Your task to perform on an android device: delete browsing data in the chrome app Image 0: 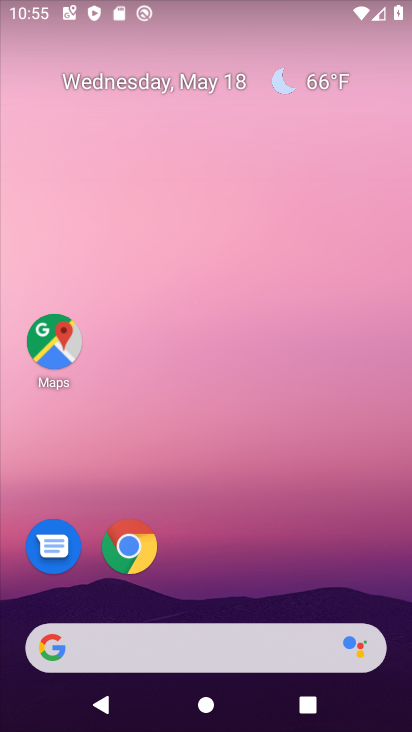
Step 0: click (133, 548)
Your task to perform on an android device: delete browsing data in the chrome app Image 1: 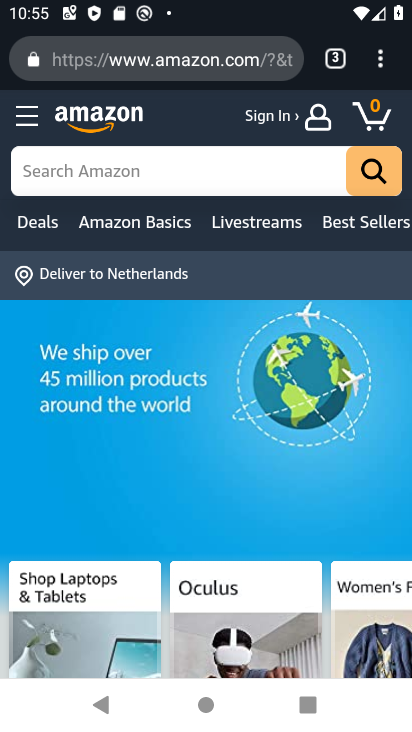
Step 1: click (381, 72)
Your task to perform on an android device: delete browsing data in the chrome app Image 2: 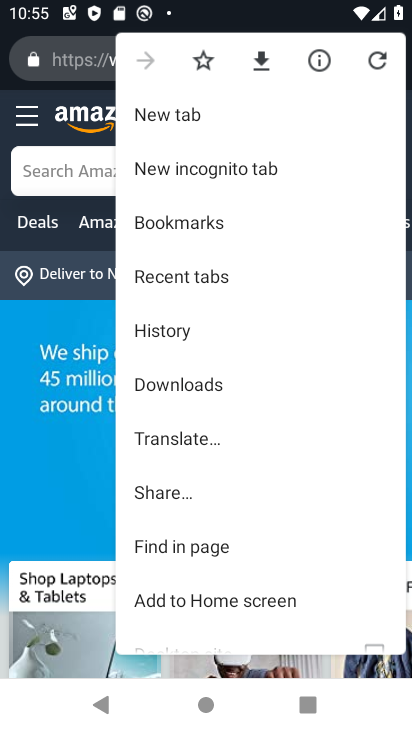
Step 2: drag from (181, 585) to (212, 305)
Your task to perform on an android device: delete browsing data in the chrome app Image 3: 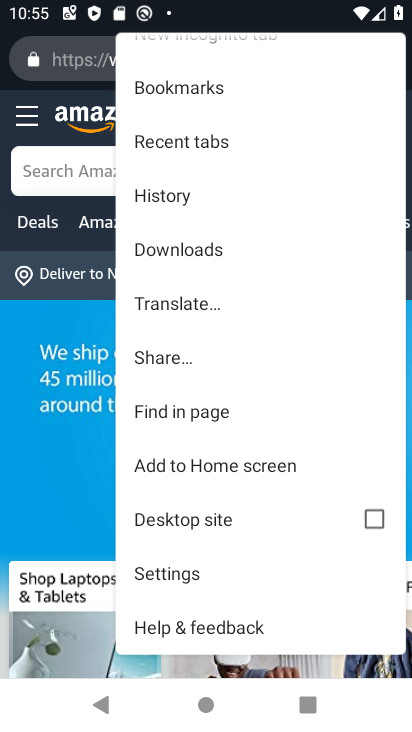
Step 3: click (170, 197)
Your task to perform on an android device: delete browsing data in the chrome app Image 4: 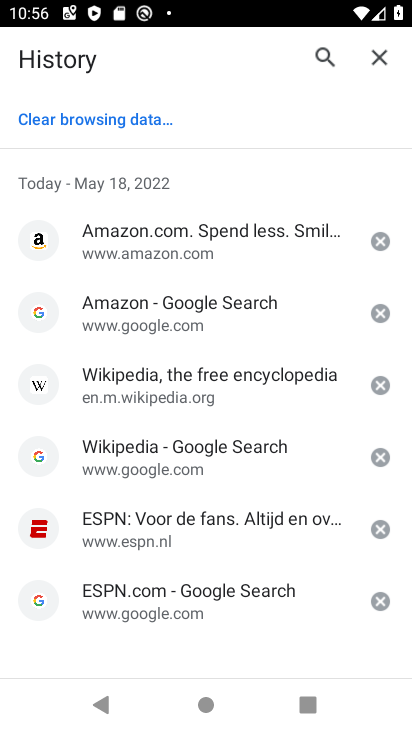
Step 4: click (117, 119)
Your task to perform on an android device: delete browsing data in the chrome app Image 5: 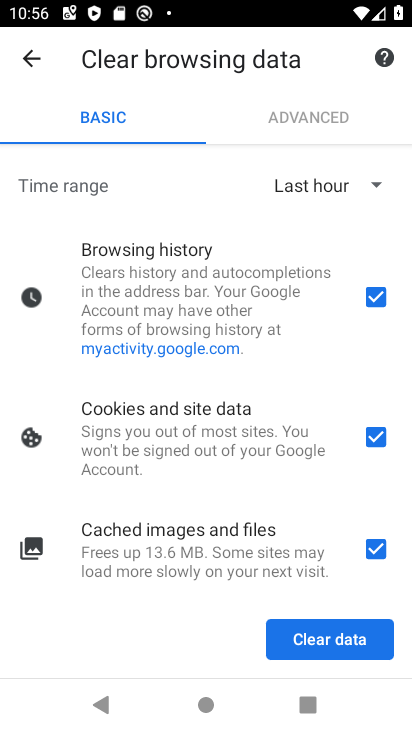
Step 5: click (379, 552)
Your task to perform on an android device: delete browsing data in the chrome app Image 6: 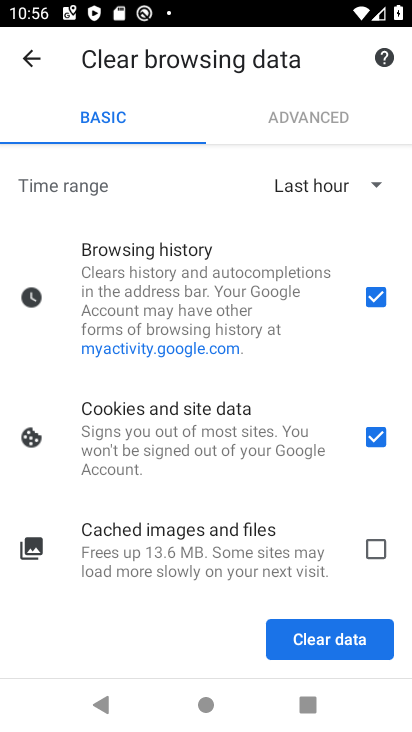
Step 6: click (372, 436)
Your task to perform on an android device: delete browsing data in the chrome app Image 7: 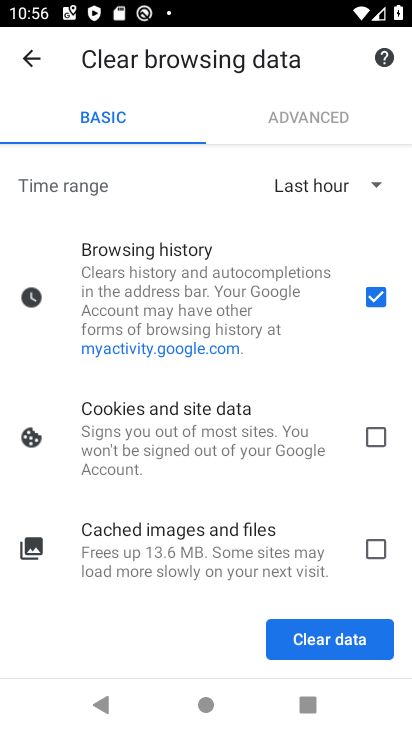
Step 7: click (331, 638)
Your task to perform on an android device: delete browsing data in the chrome app Image 8: 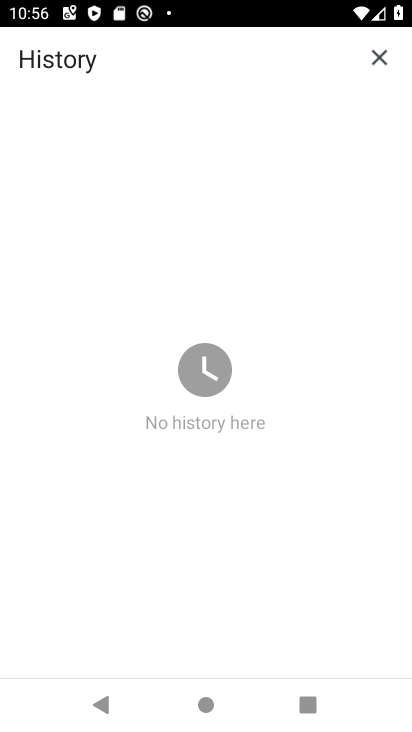
Step 8: task complete